Your task to perform on an android device: When is my next appointment? Image 0: 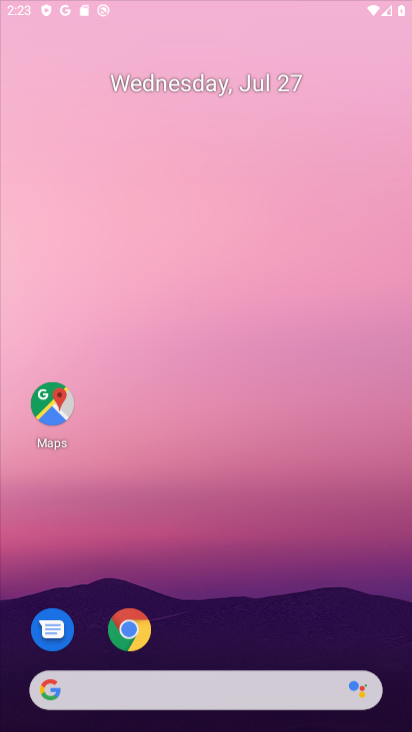
Step 0: drag from (248, 100) to (329, 97)
Your task to perform on an android device: When is my next appointment? Image 1: 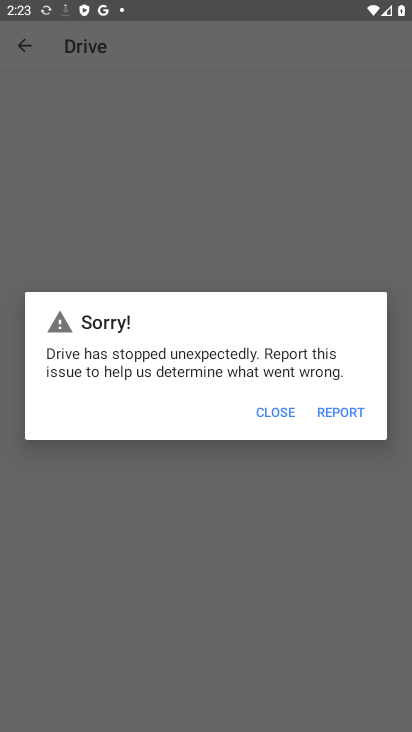
Step 1: drag from (323, 314) to (323, 110)
Your task to perform on an android device: When is my next appointment? Image 2: 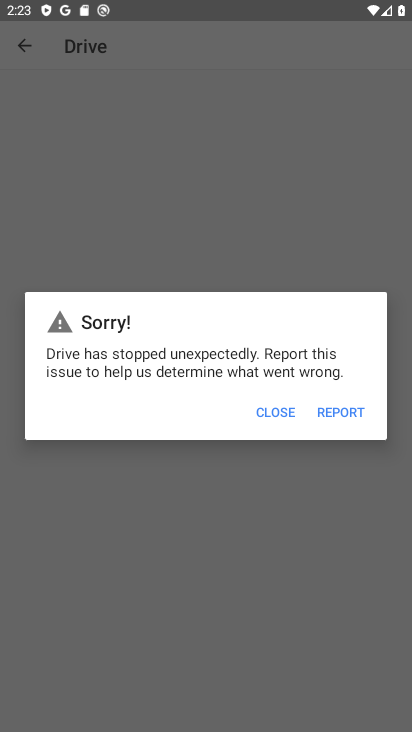
Step 2: click (265, 416)
Your task to perform on an android device: When is my next appointment? Image 3: 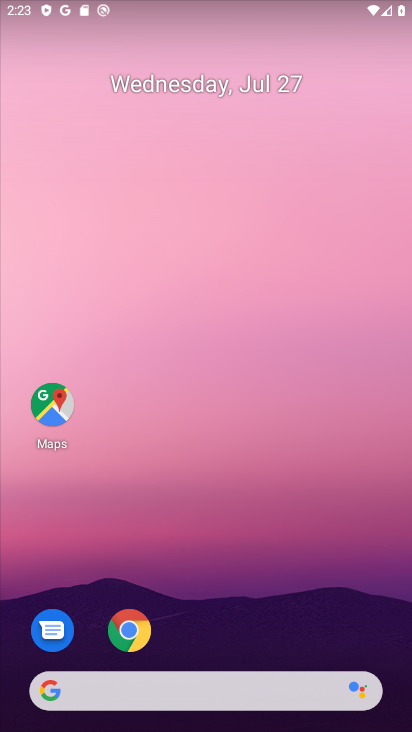
Step 3: drag from (231, 556) to (177, 199)
Your task to perform on an android device: When is my next appointment? Image 4: 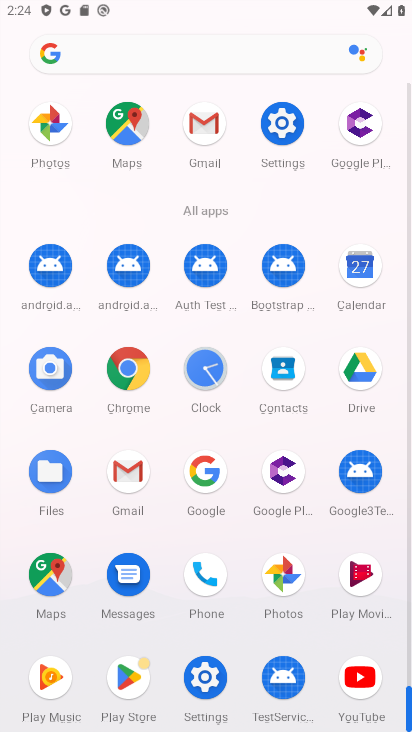
Step 4: click (347, 284)
Your task to perform on an android device: When is my next appointment? Image 5: 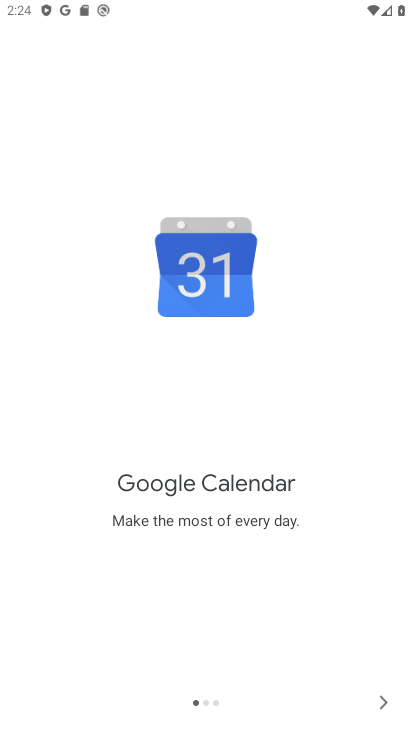
Step 5: click (376, 706)
Your task to perform on an android device: When is my next appointment? Image 6: 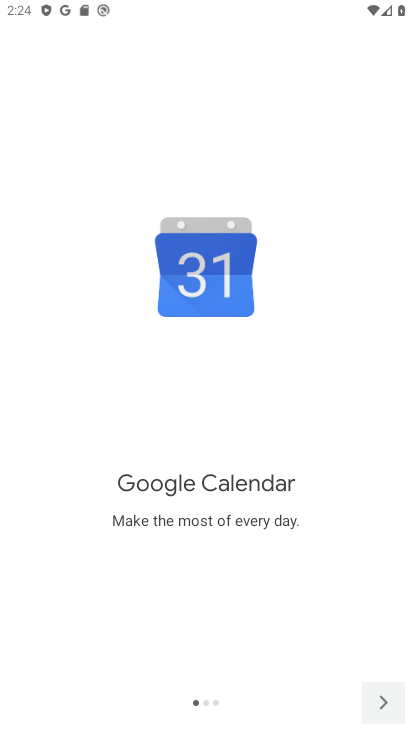
Step 6: click (380, 686)
Your task to perform on an android device: When is my next appointment? Image 7: 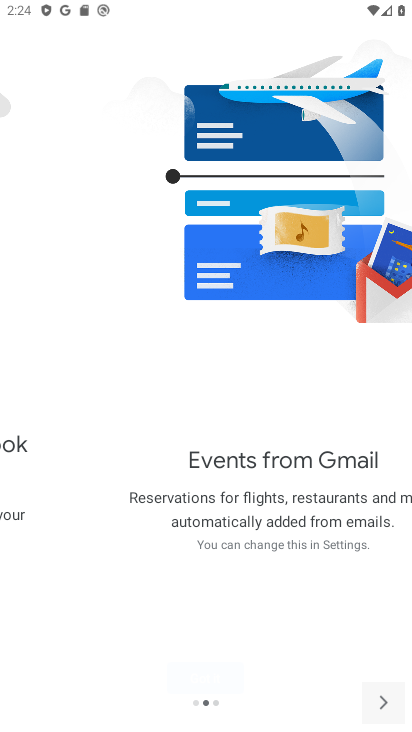
Step 7: click (388, 677)
Your task to perform on an android device: When is my next appointment? Image 8: 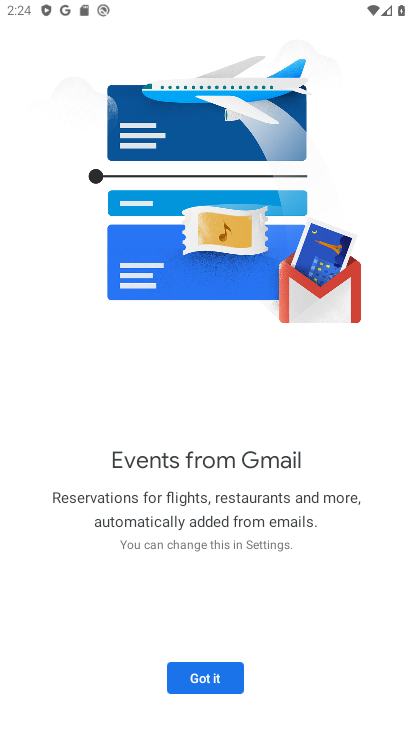
Step 8: click (377, 729)
Your task to perform on an android device: When is my next appointment? Image 9: 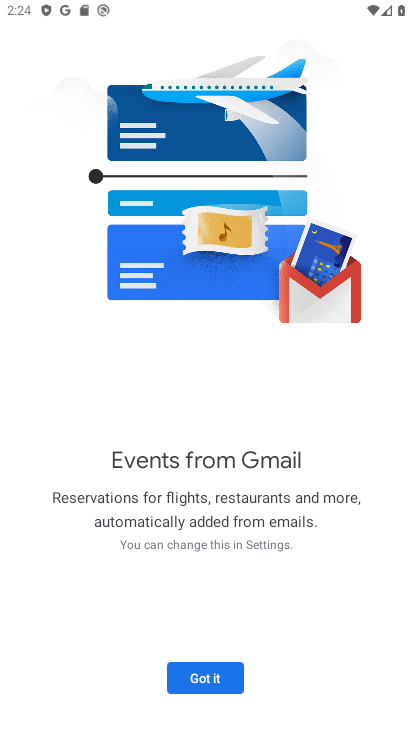
Step 9: click (377, 729)
Your task to perform on an android device: When is my next appointment? Image 10: 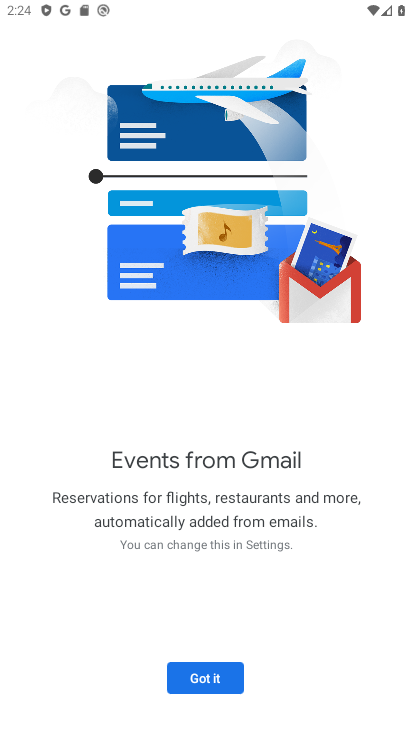
Step 10: click (219, 682)
Your task to perform on an android device: When is my next appointment? Image 11: 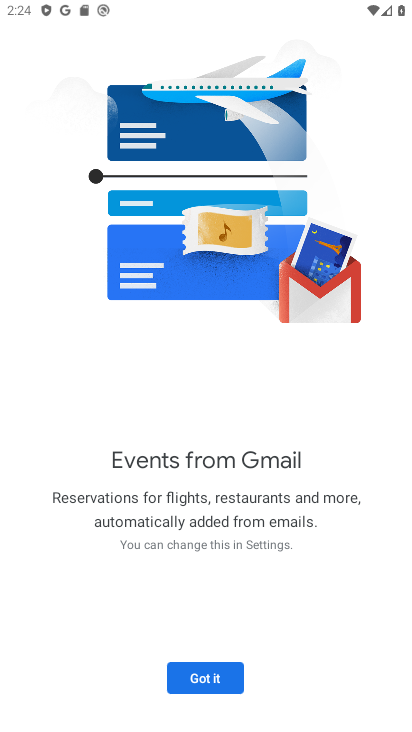
Step 11: click (218, 681)
Your task to perform on an android device: When is my next appointment? Image 12: 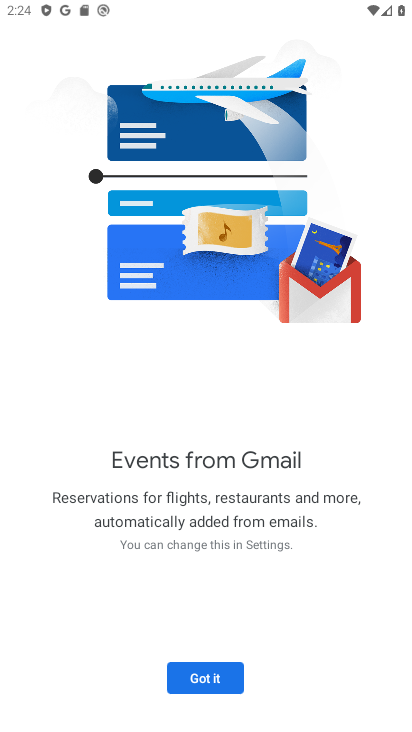
Step 12: click (218, 681)
Your task to perform on an android device: When is my next appointment? Image 13: 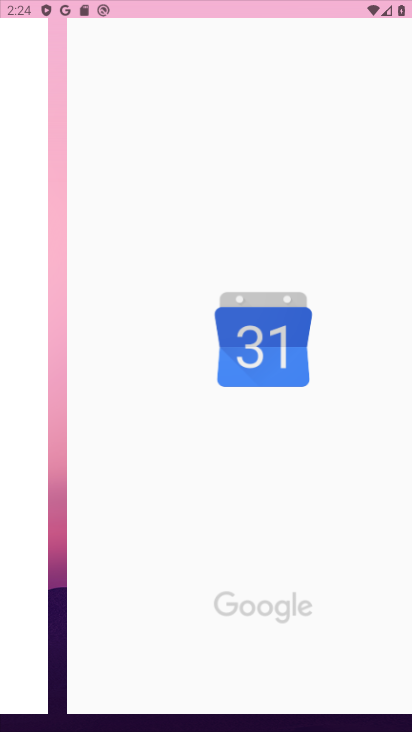
Step 13: click (218, 680)
Your task to perform on an android device: When is my next appointment? Image 14: 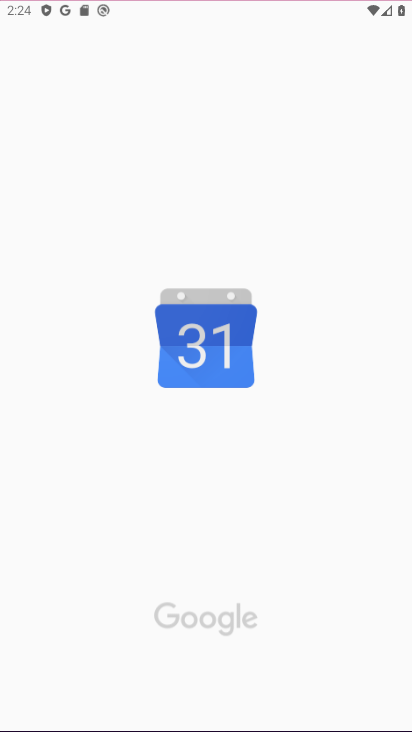
Step 14: click (218, 680)
Your task to perform on an android device: When is my next appointment? Image 15: 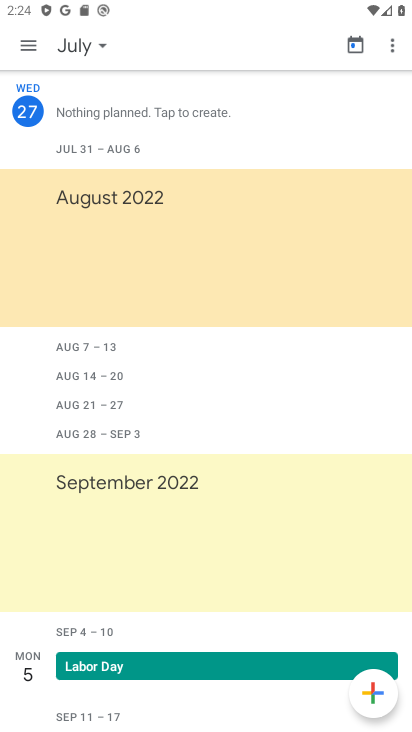
Step 15: click (108, 43)
Your task to perform on an android device: When is my next appointment? Image 16: 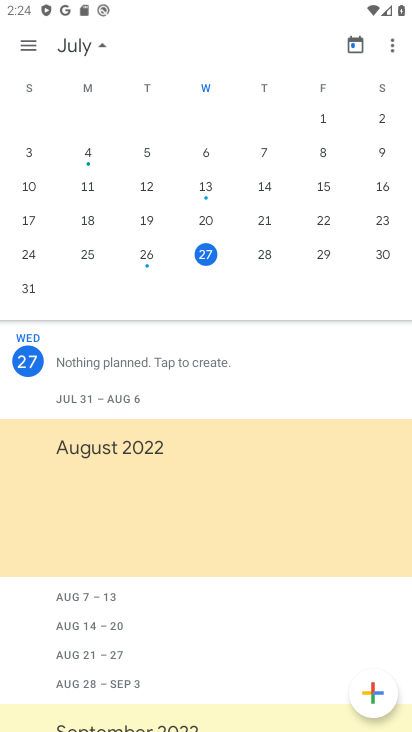
Step 16: click (318, 252)
Your task to perform on an android device: When is my next appointment? Image 17: 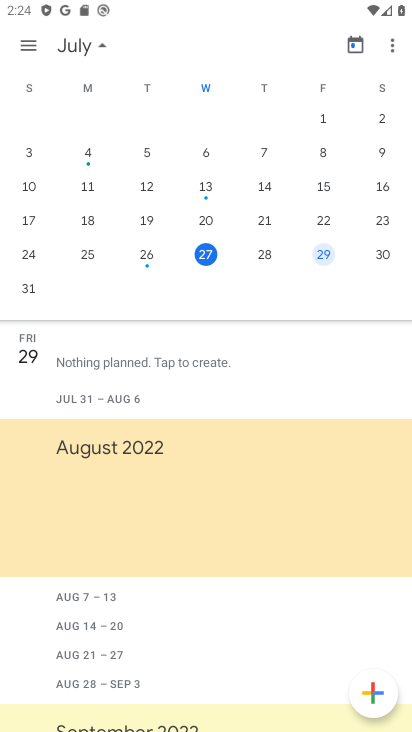
Step 17: task complete